Your task to perform on an android device: Go to battery settings Image 0: 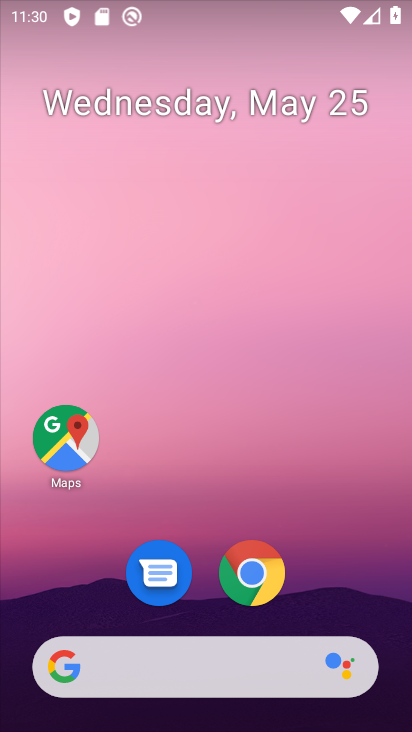
Step 0: drag from (210, 645) to (214, 104)
Your task to perform on an android device: Go to battery settings Image 1: 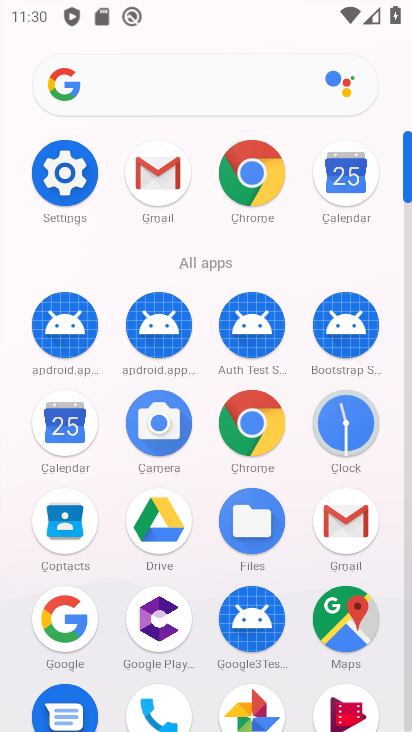
Step 1: click (84, 180)
Your task to perform on an android device: Go to battery settings Image 2: 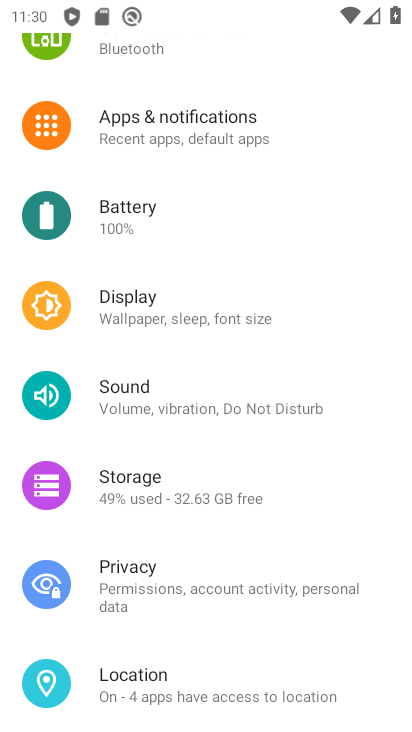
Step 2: click (103, 203)
Your task to perform on an android device: Go to battery settings Image 3: 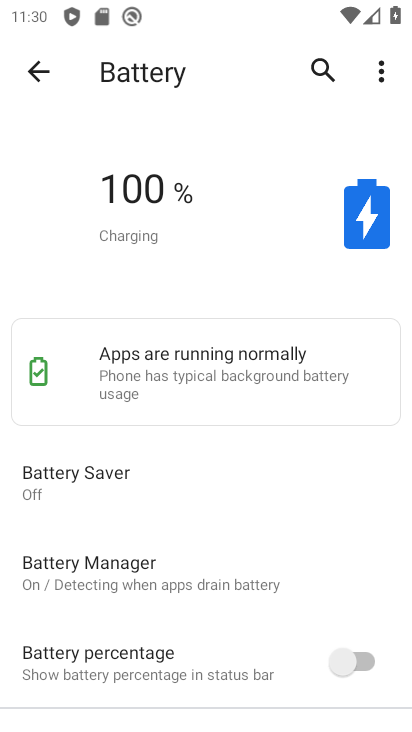
Step 3: task complete